Your task to perform on an android device: Open the calendar and show me this week's events Image 0: 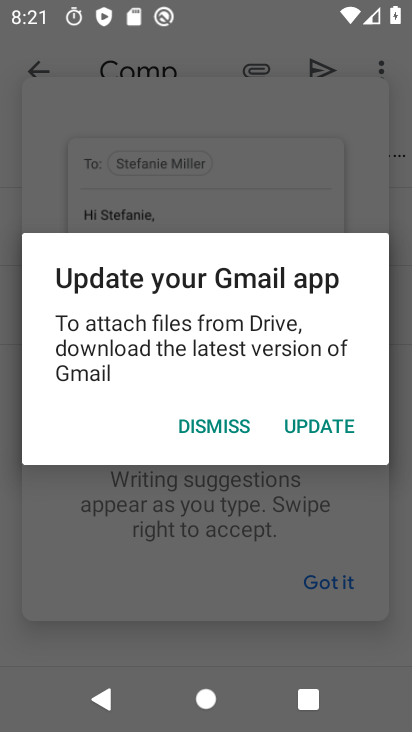
Step 0: press home button
Your task to perform on an android device: Open the calendar and show me this week's events Image 1: 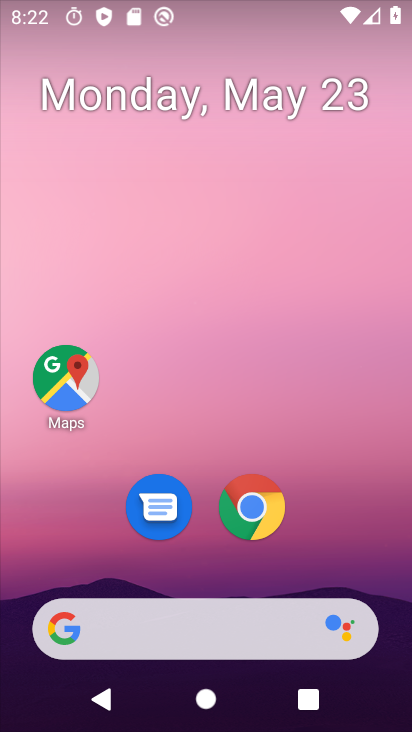
Step 1: drag from (341, 513) to (336, 46)
Your task to perform on an android device: Open the calendar and show me this week's events Image 2: 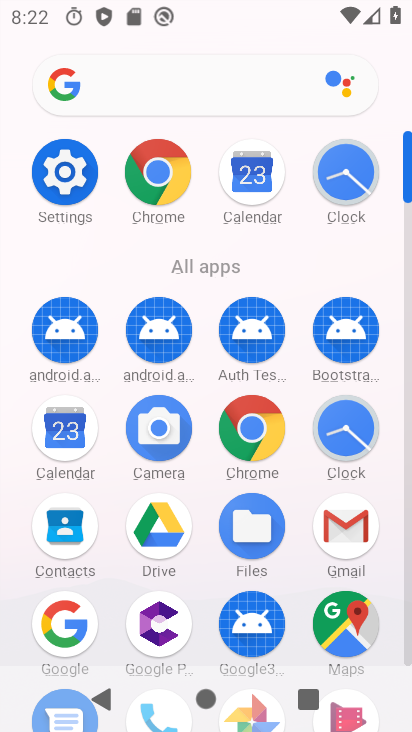
Step 2: click (46, 447)
Your task to perform on an android device: Open the calendar and show me this week's events Image 3: 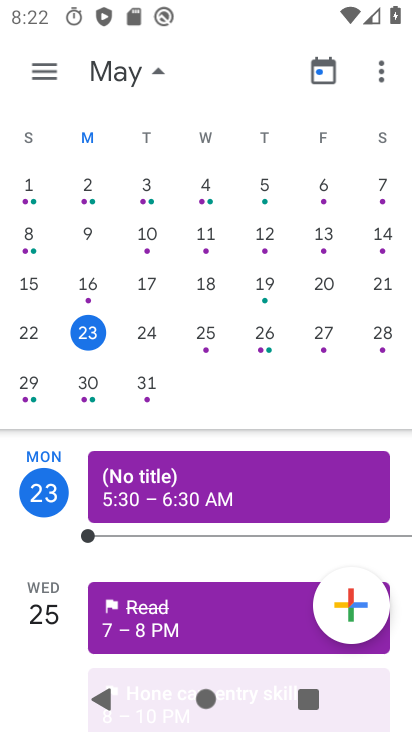
Step 3: click (260, 346)
Your task to perform on an android device: Open the calendar and show me this week's events Image 4: 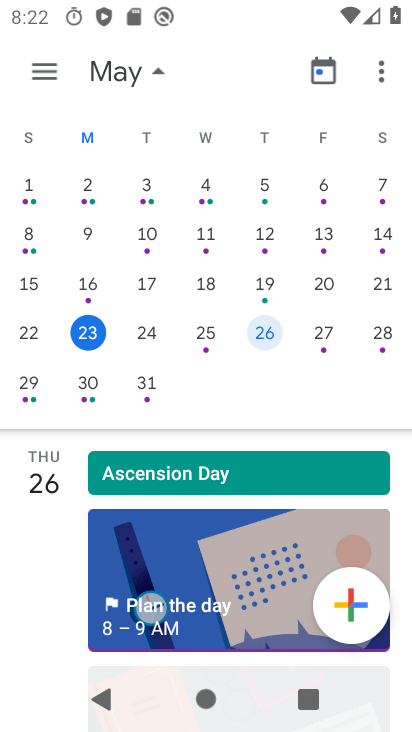
Step 4: task complete